Your task to perform on an android device: Open Google Maps Image 0: 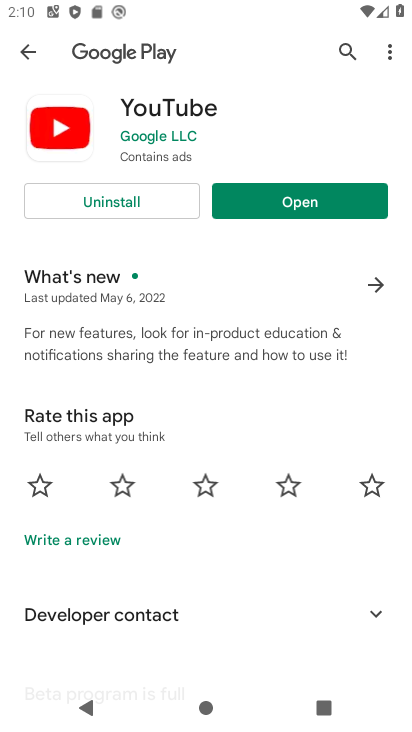
Step 0: press home button
Your task to perform on an android device: Open Google Maps Image 1: 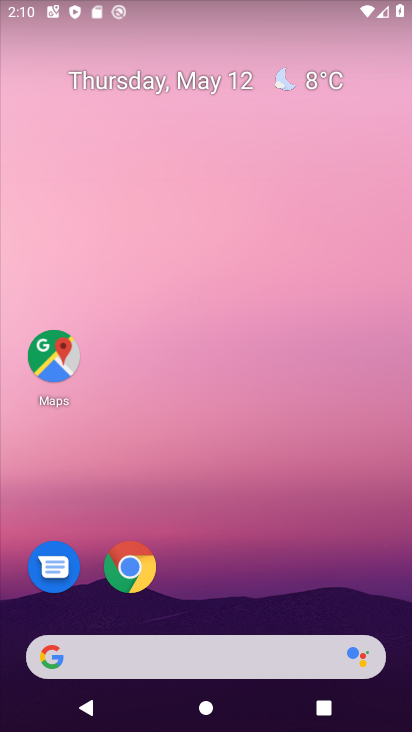
Step 1: click (52, 352)
Your task to perform on an android device: Open Google Maps Image 2: 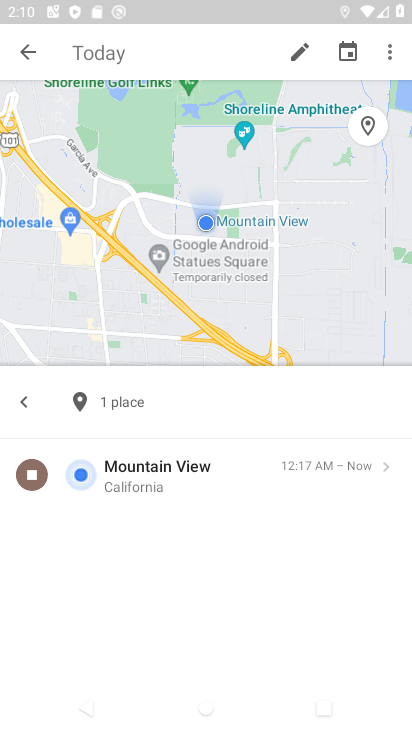
Step 2: click (28, 48)
Your task to perform on an android device: Open Google Maps Image 3: 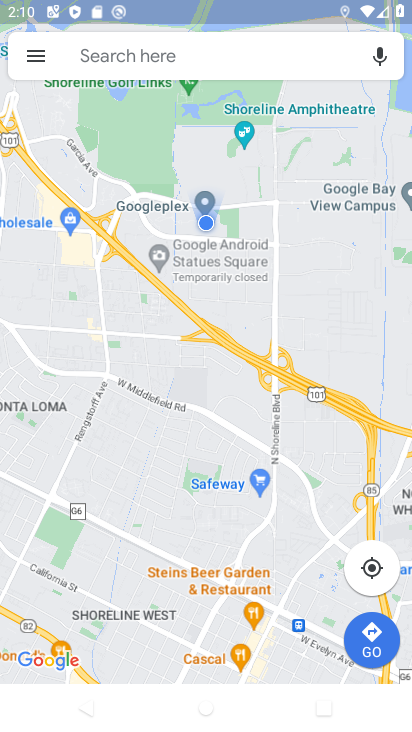
Step 3: task complete